Your task to perform on an android device: Open calendar and show me the fourth week of next month Image 0: 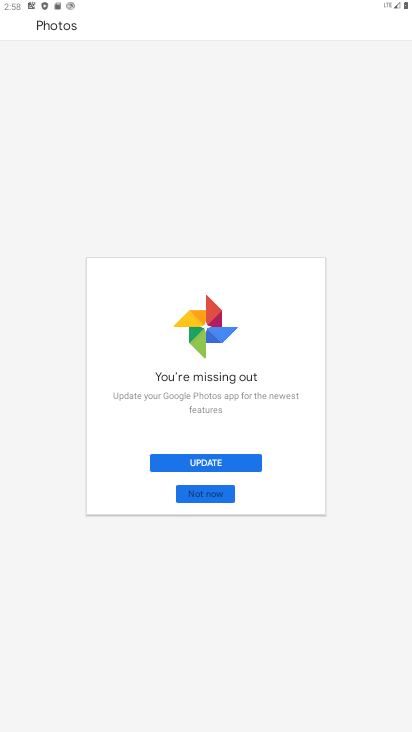
Step 0: press home button
Your task to perform on an android device: Open calendar and show me the fourth week of next month Image 1: 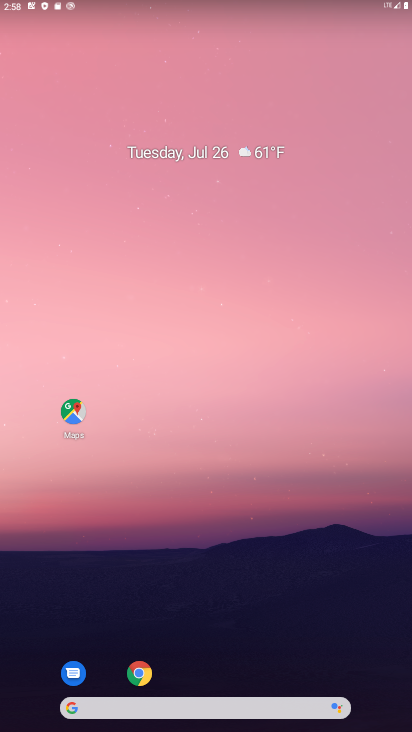
Step 1: drag from (216, 578) to (218, 245)
Your task to perform on an android device: Open calendar and show me the fourth week of next month Image 2: 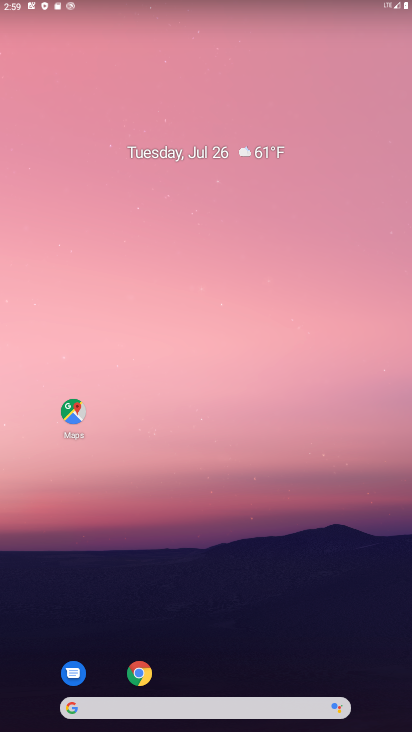
Step 2: drag from (191, 679) to (137, 38)
Your task to perform on an android device: Open calendar and show me the fourth week of next month Image 3: 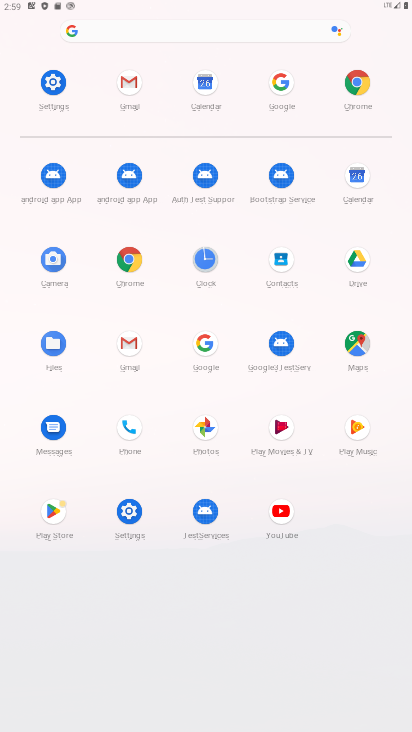
Step 3: click (355, 170)
Your task to perform on an android device: Open calendar and show me the fourth week of next month Image 4: 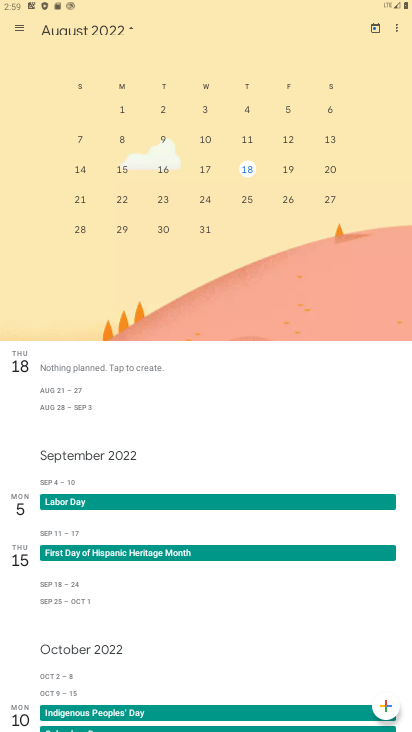
Step 4: drag from (232, 551) to (217, 175)
Your task to perform on an android device: Open calendar and show me the fourth week of next month Image 5: 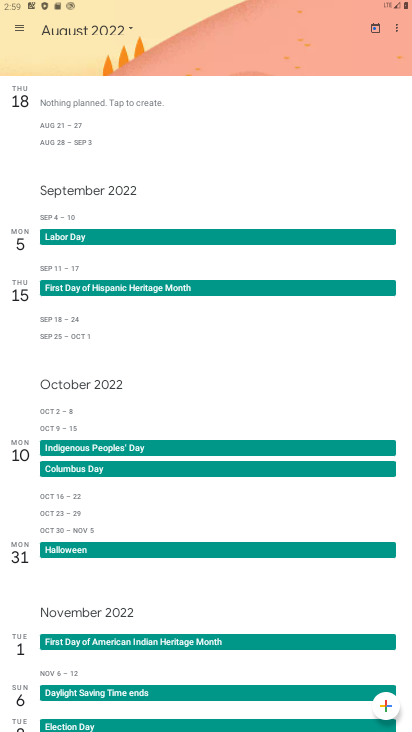
Step 5: drag from (235, 560) to (235, 272)
Your task to perform on an android device: Open calendar and show me the fourth week of next month Image 6: 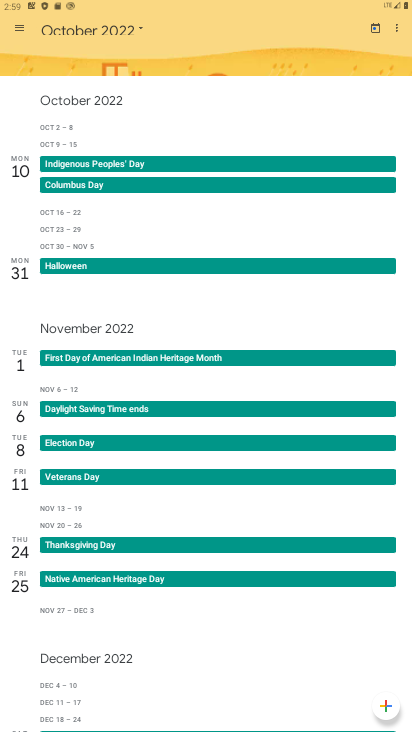
Step 6: drag from (223, 162) to (288, 597)
Your task to perform on an android device: Open calendar and show me the fourth week of next month Image 7: 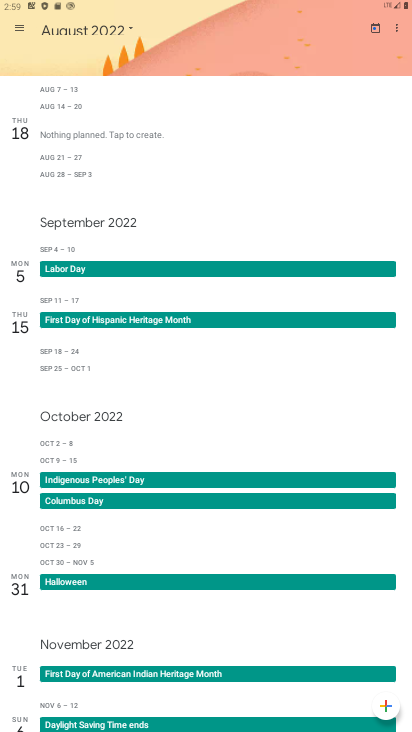
Step 7: click (94, 28)
Your task to perform on an android device: Open calendar and show me the fourth week of next month Image 8: 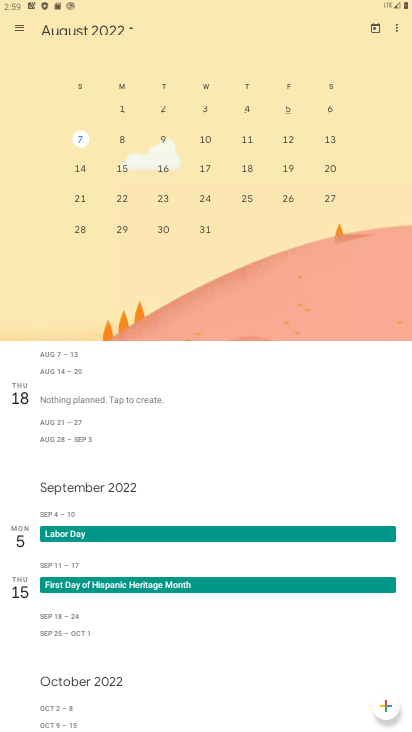
Step 8: click (243, 194)
Your task to perform on an android device: Open calendar and show me the fourth week of next month Image 9: 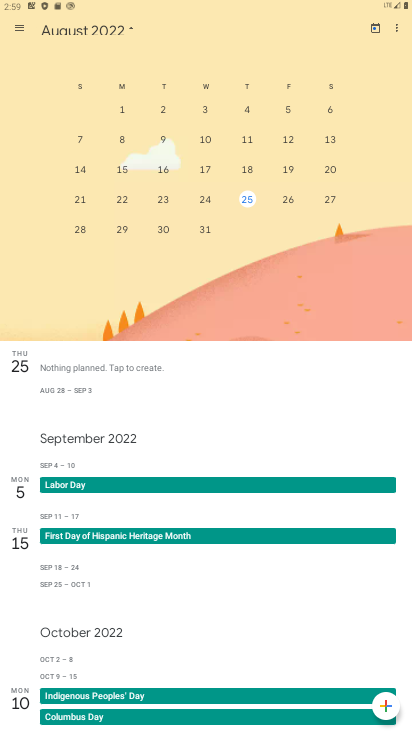
Step 9: task complete